Your task to perform on an android device: check the backup settings in the google photos Image 0: 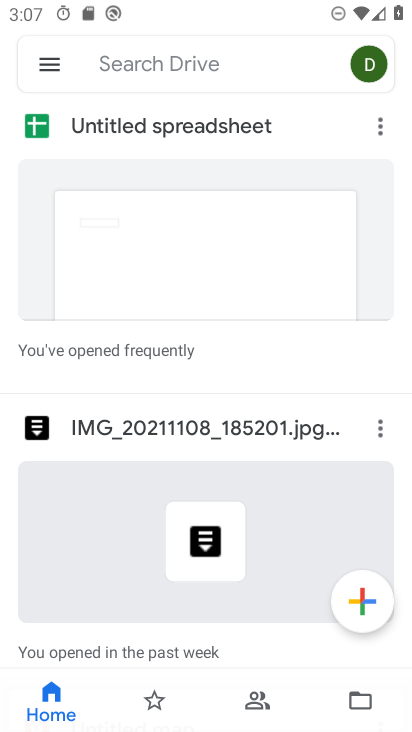
Step 0: press home button
Your task to perform on an android device: check the backup settings in the google photos Image 1: 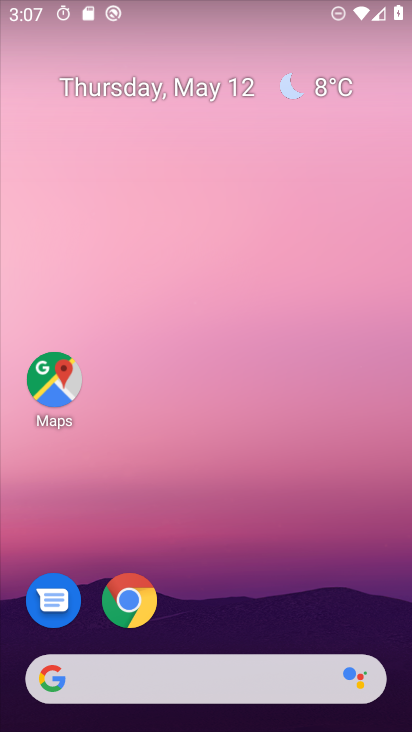
Step 1: drag from (207, 679) to (216, 199)
Your task to perform on an android device: check the backup settings in the google photos Image 2: 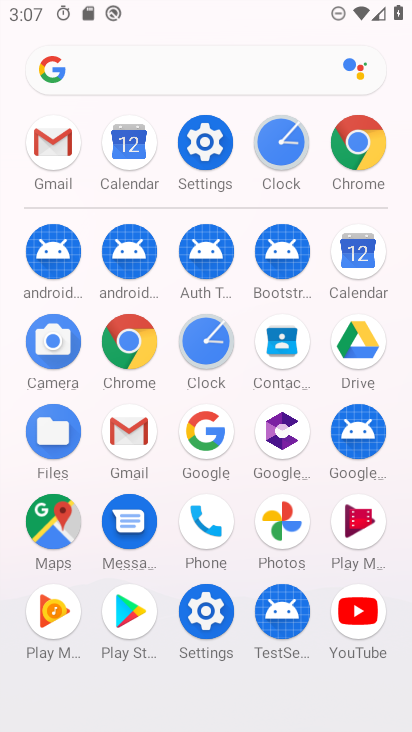
Step 2: click (281, 523)
Your task to perform on an android device: check the backup settings in the google photos Image 3: 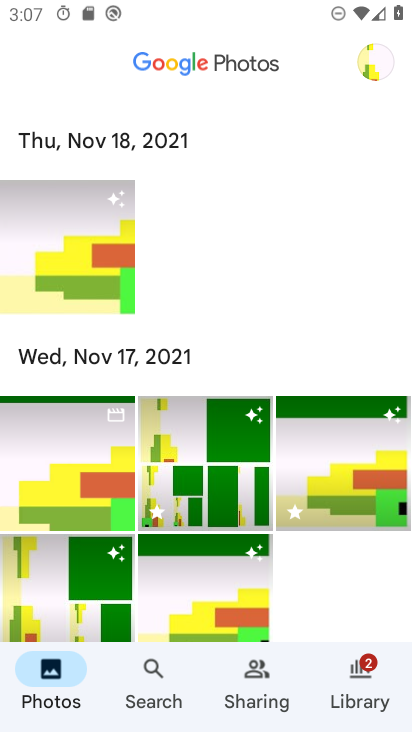
Step 3: click (377, 60)
Your task to perform on an android device: check the backup settings in the google photos Image 4: 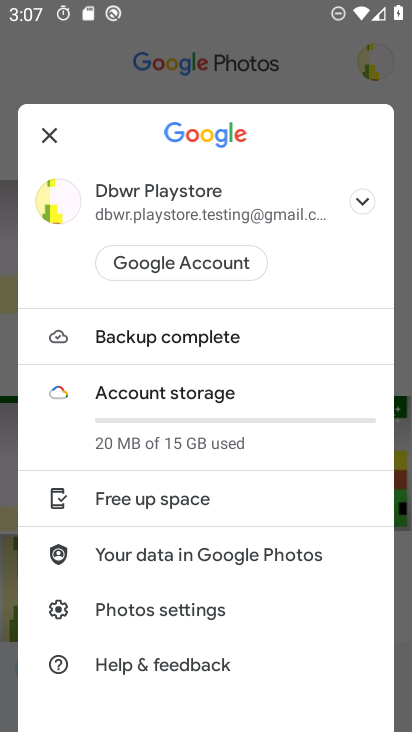
Step 4: click (146, 605)
Your task to perform on an android device: check the backup settings in the google photos Image 5: 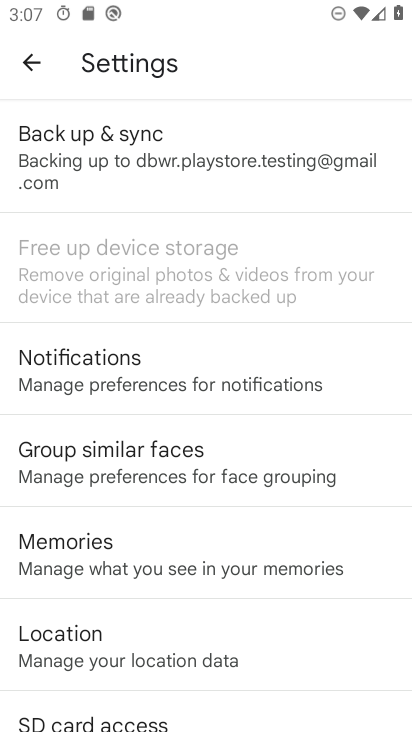
Step 5: click (41, 130)
Your task to perform on an android device: check the backup settings in the google photos Image 6: 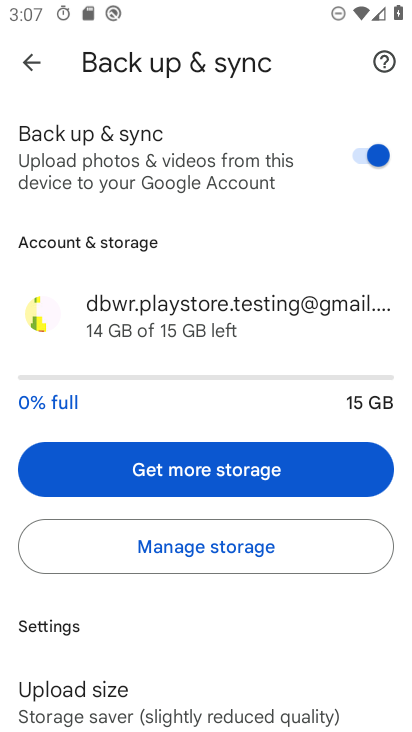
Step 6: task complete